Your task to perform on an android device: open a bookmark in the chrome app Image 0: 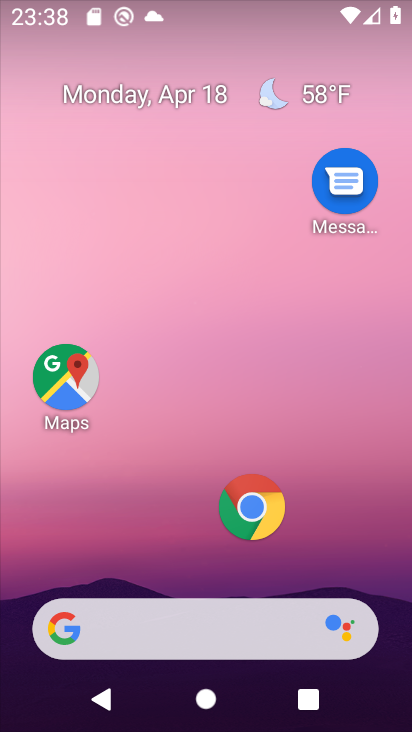
Step 0: click (248, 520)
Your task to perform on an android device: open a bookmark in the chrome app Image 1: 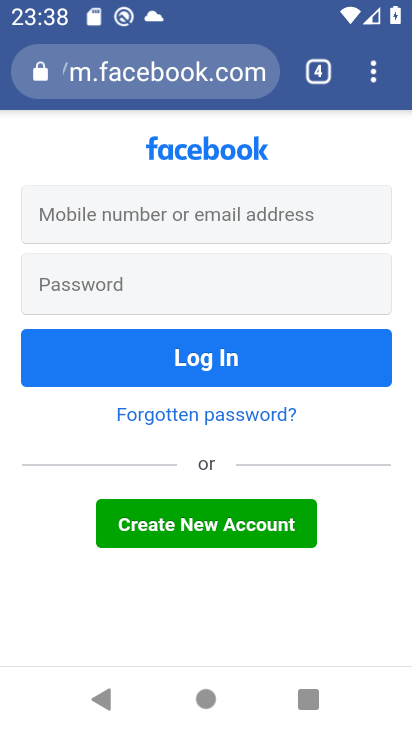
Step 1: click (373, 71)
Your task to perform on an android device: open a bookmark in the chrome app Image 2: 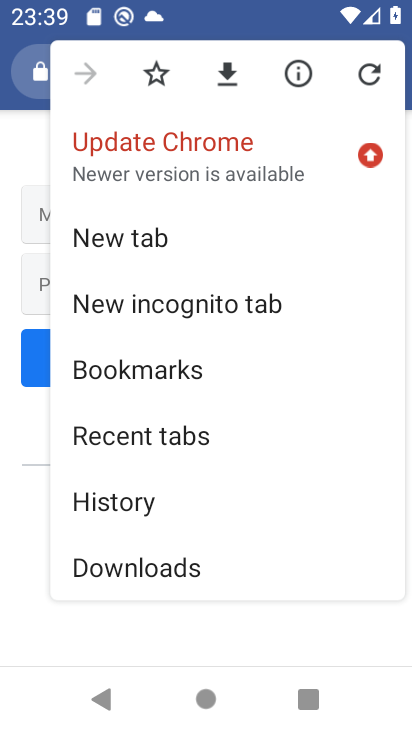
Step 2: click (212, 239)
Your task to perform on an android device: open a bookmark in the chrome app Image 3: 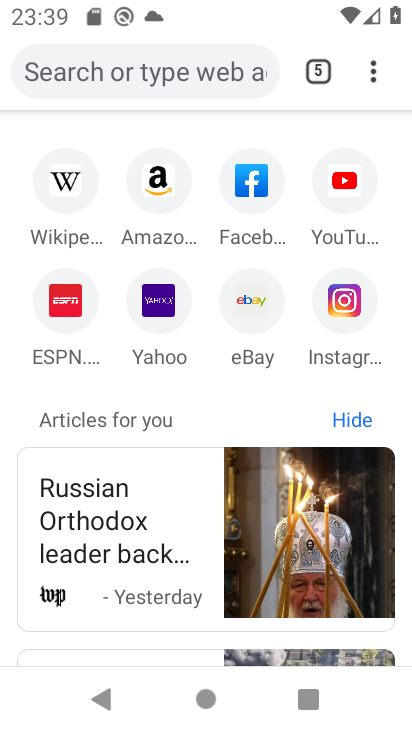
Step 3: click (146, 179)
Your task to perform on an android device: open a bookmark in the chrome app Image 4: 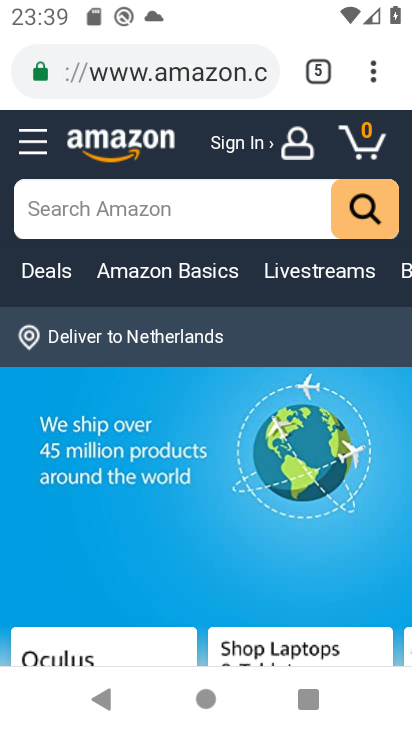
Step 4: task complete